Your task to perform on an android device: Go to Google maps Image 0: 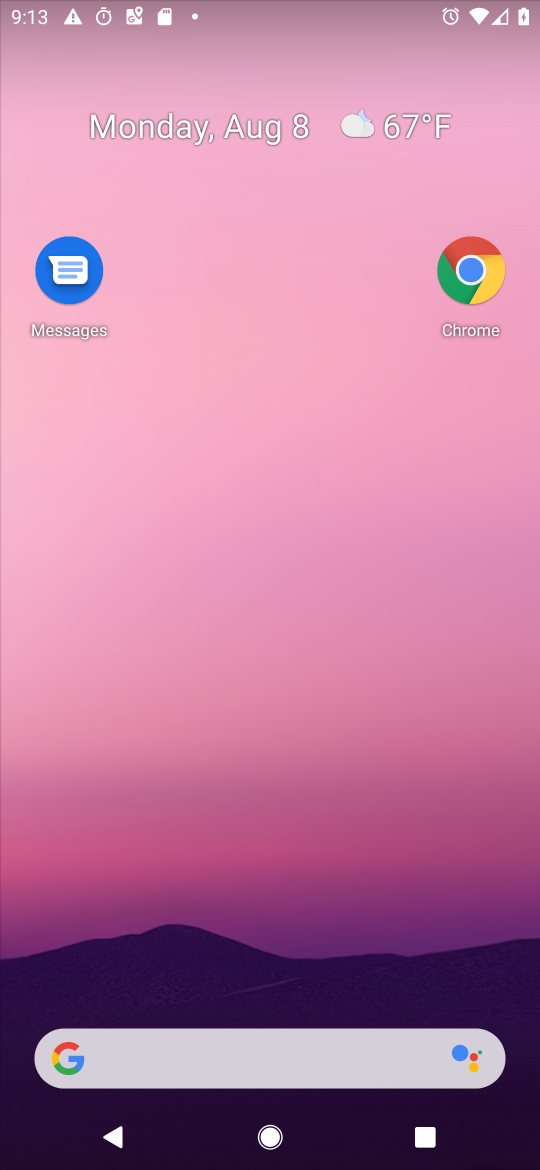
Step 0: drag from (197, 826) to (202, 374)
Your task to perform on an android device: Go to Google maps Image 1: 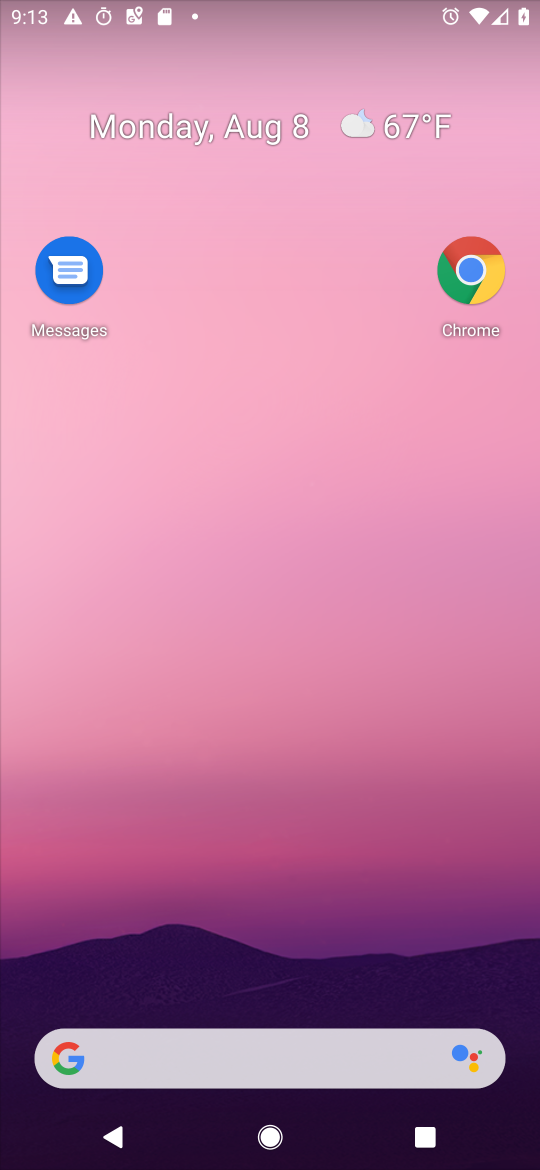
Step 1: drag from (231, 981) to (255, 709)
Your task to perform on an android device: Go to Google maps Image 2: 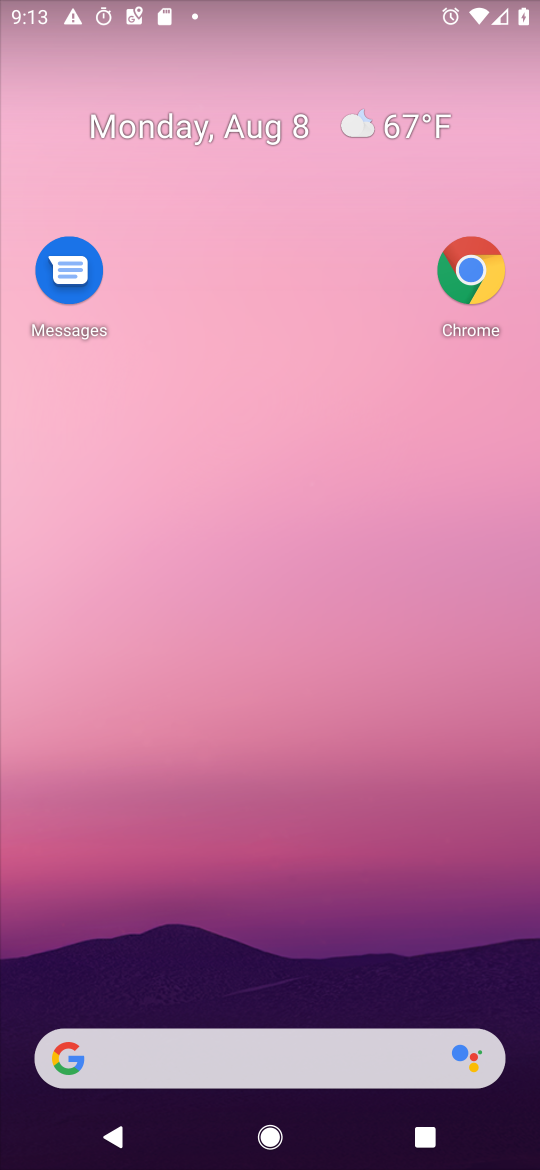
Step 2: drag from (315, 467) to (351, 146)
Your task to perform on an android device: Go to Google maps Image 3: 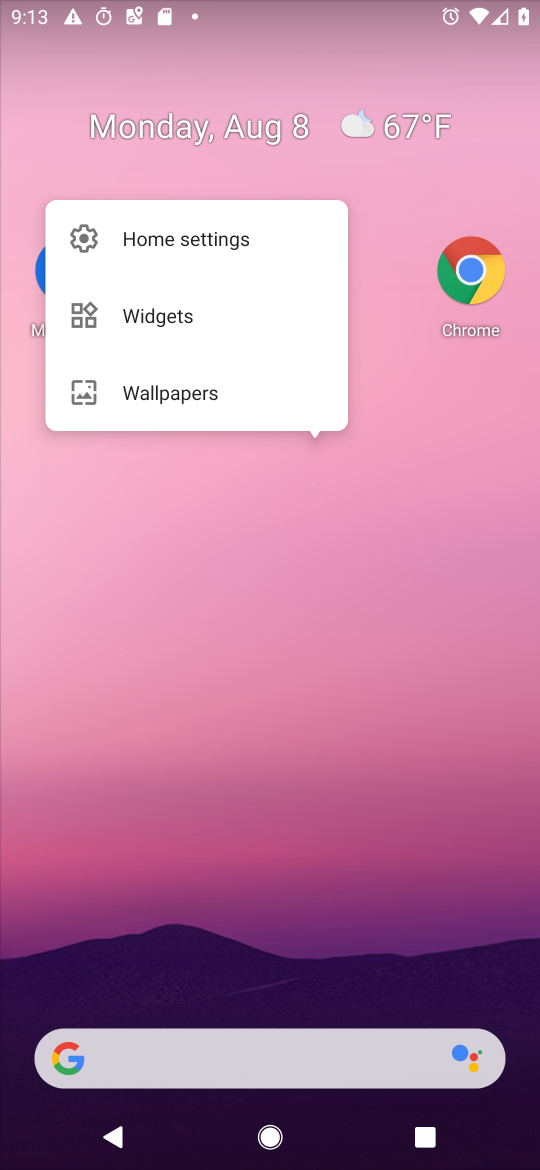
Step 3: drag from (223, 940) to (325, 337)
Your task to perform on an android device: Go to Google maps Image 4: 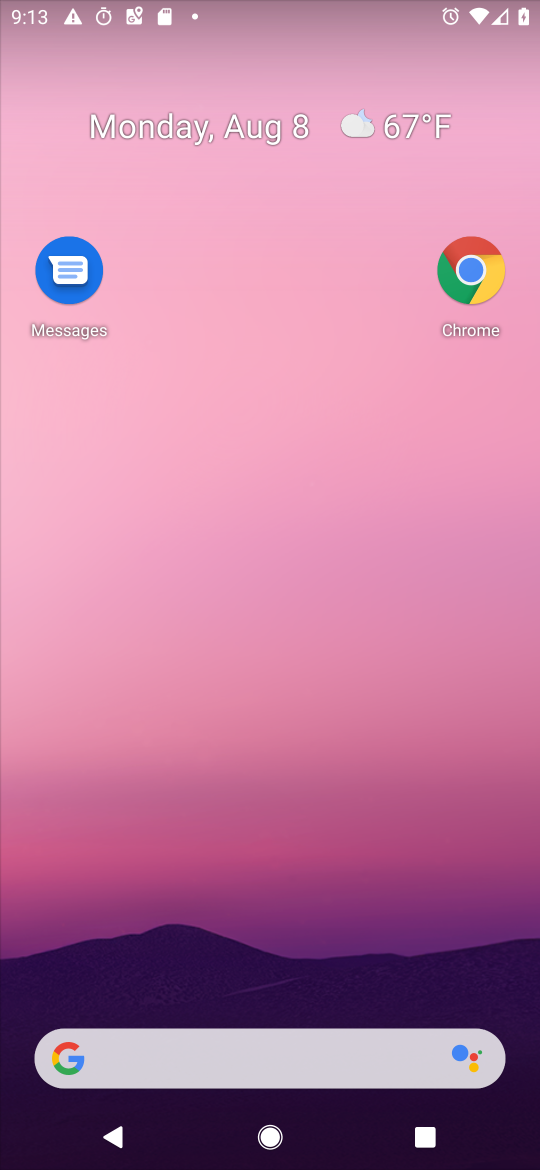
Step 4: drag from (300, 975) to (358, 232)
Your task to perform on an android device: Go to Google maps Image 5: 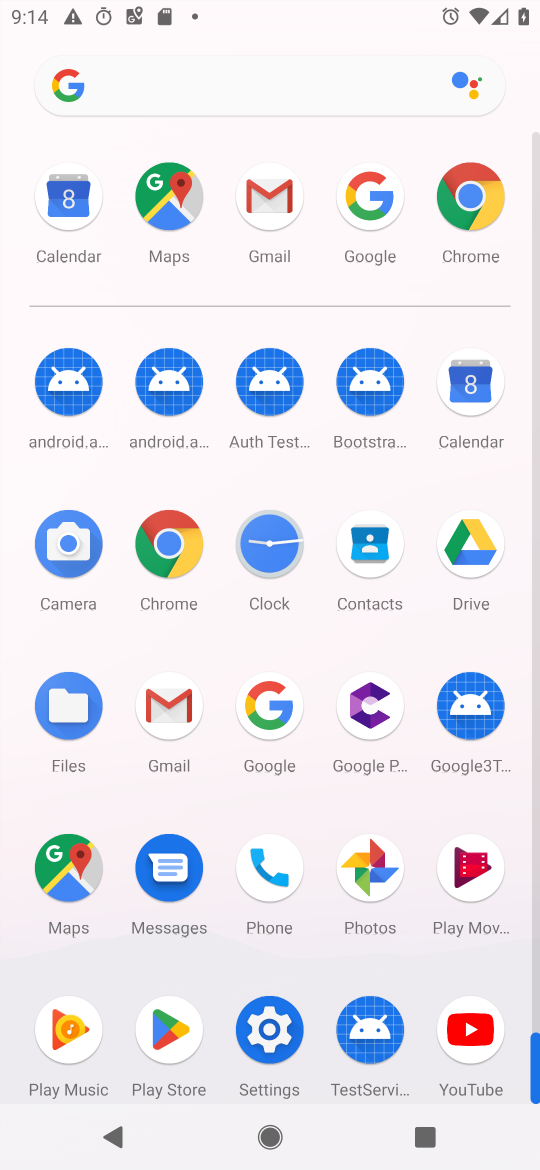
Step 5: drag from (317, 915) to (352, 855)
Your task to perform on an android device: Go to Google maps Image 6: 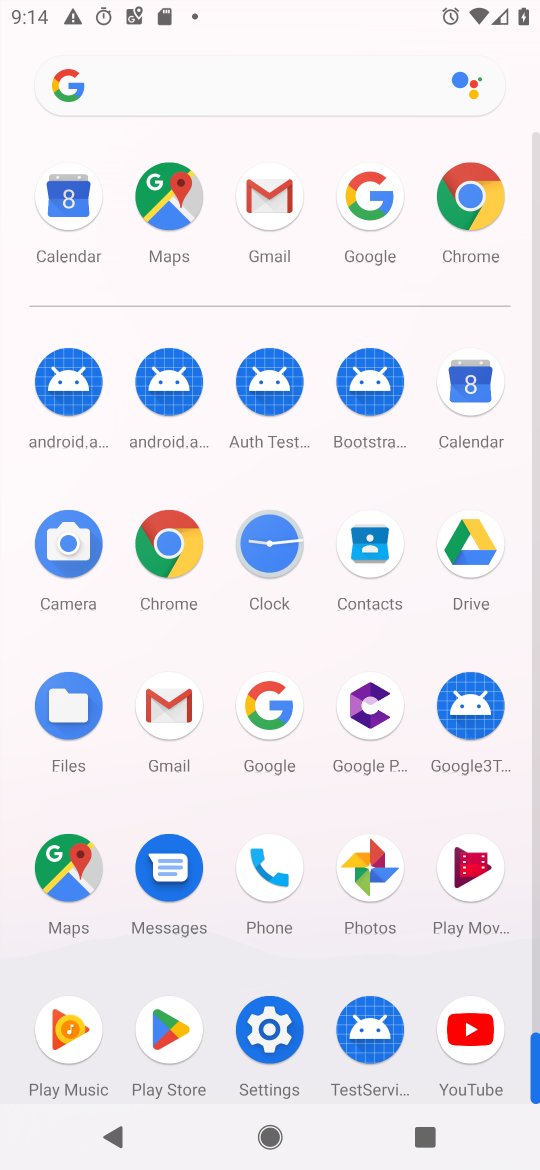
Step 6: click (162, 182)
Your task to perform on an android device: Go to Google maps Image 7: 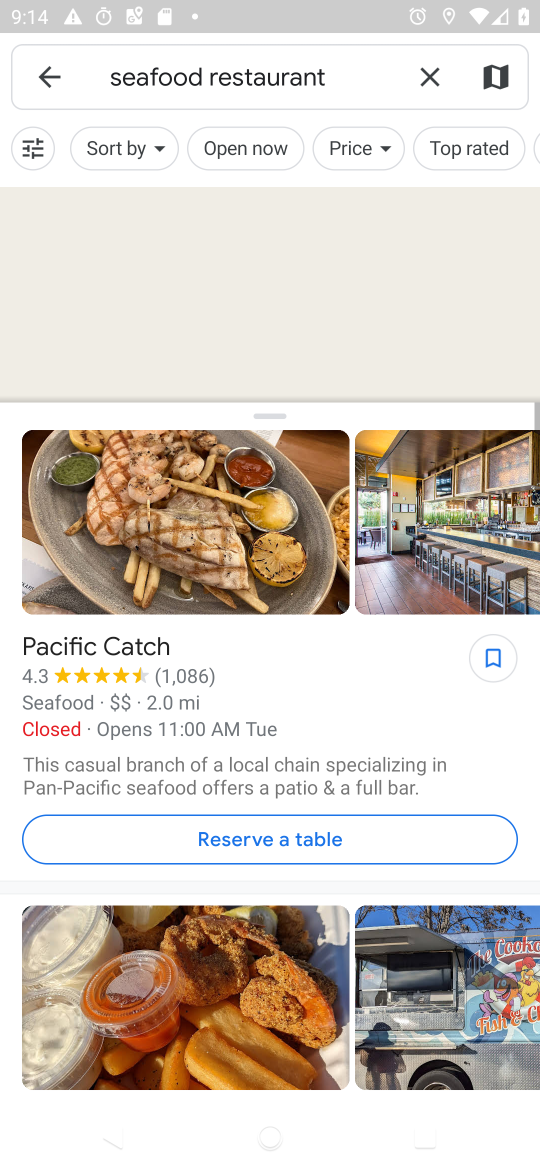
Step 7: task complete